Your task to perform on an android device: set default search engine in the chrome app Image 0: 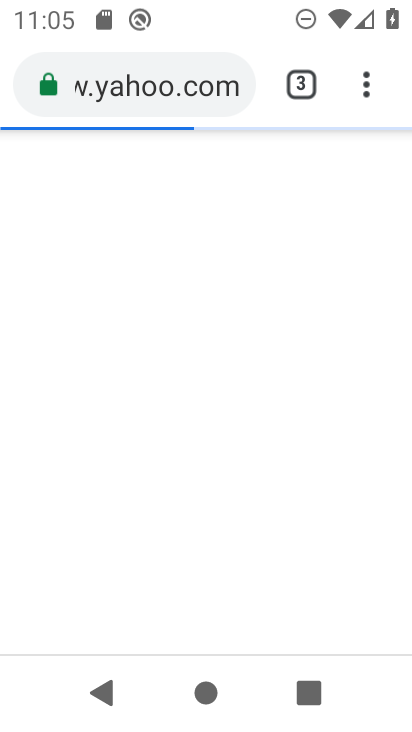
Step 0: press home button
Your task to perform on an android device: set default search engine in the chrome app Image 1: 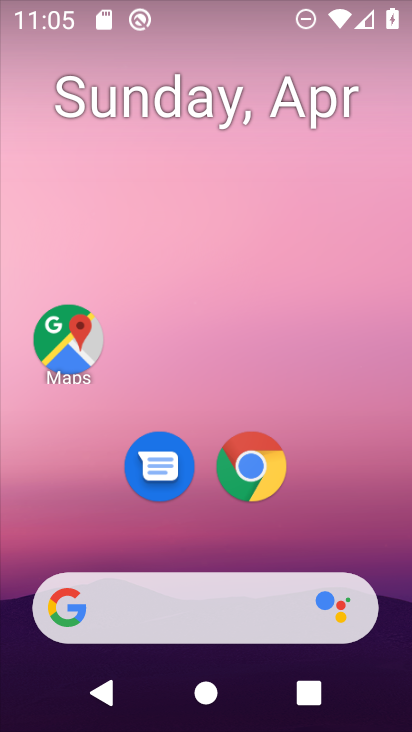
Step 1: drag from (360, 523) to (373, 99)
Your task to perform on an android device: set default search engine in the chrome app Image 2: 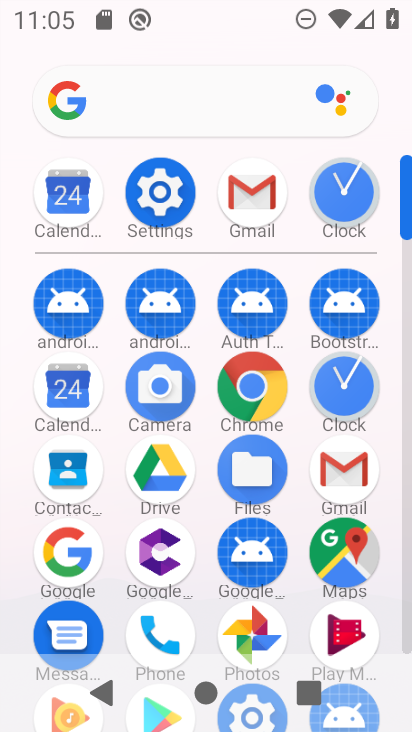
Step 2: click (251, 393)
Your task to perform on an android device: set default search engine in the chrome app Image 3: 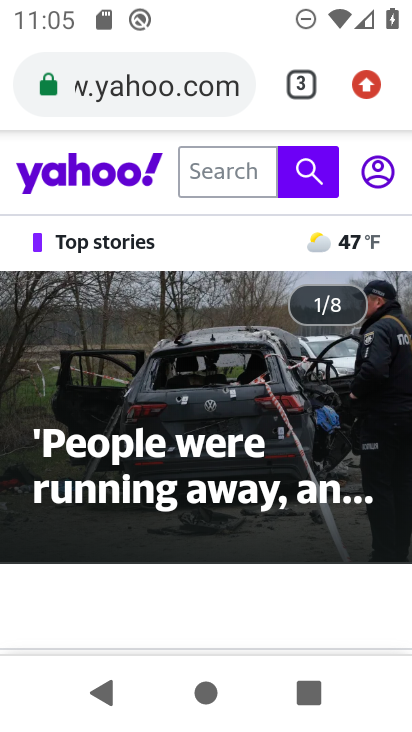
Step 3: click (371, 84)
Your task to perform on an android device: set default search engine in the chrome app Image 4: 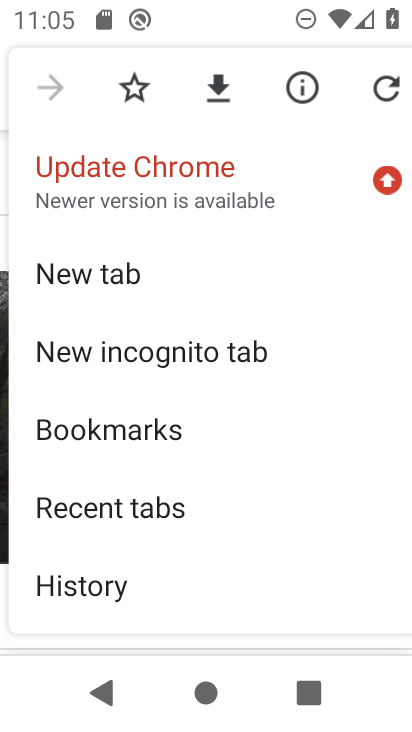
Step 4: drag from (301, 534) to (307, 366)
Your task to perform on an android device: set default search engine in the chrome app Image 5: 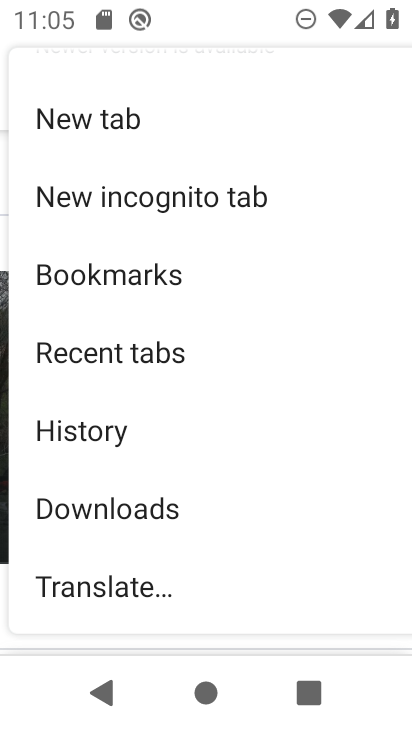
Step 5: drag from (260, 578) to (273, 279)
Your task to perform on an android device: set default search engine in the chrome app Image 6: 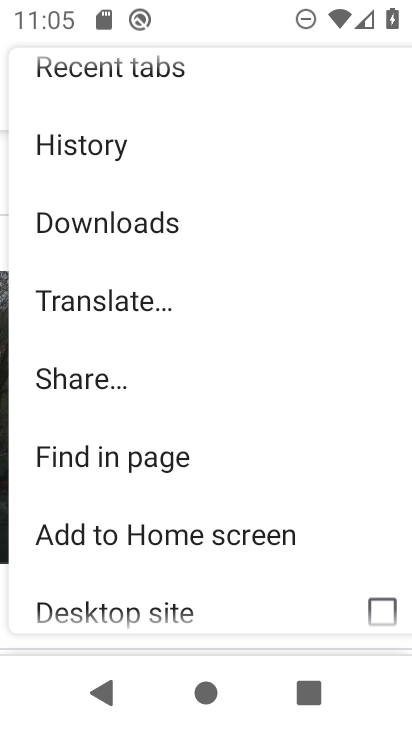
Step 6: drag from (284, 565) to (293, 319)
Your task to perform on an android device: set default search engine in the chrome app Image 7: 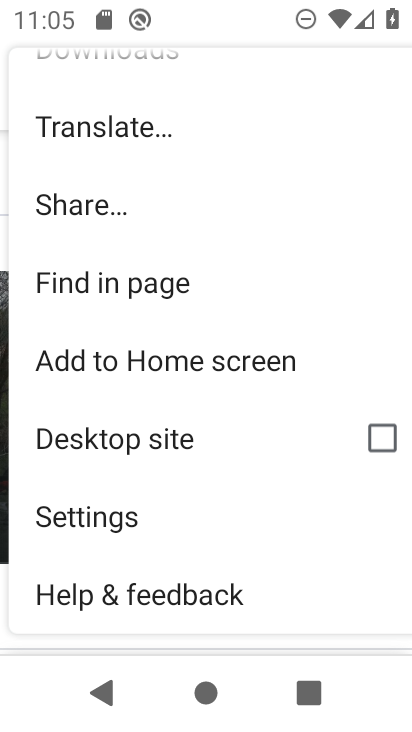
Step 7: click (134, 522)
Your task to perform on an android device: set default search engine in the chrome app Image 8: 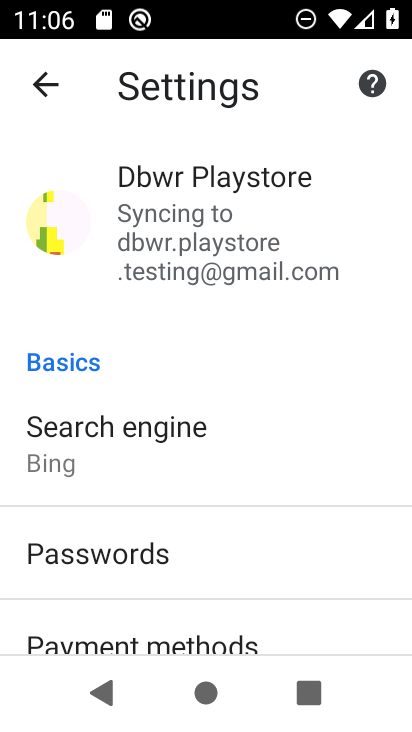
Step 8: click (140, 456)
Your task to perform on an android device: set default search engine in the chrome app Image 9: 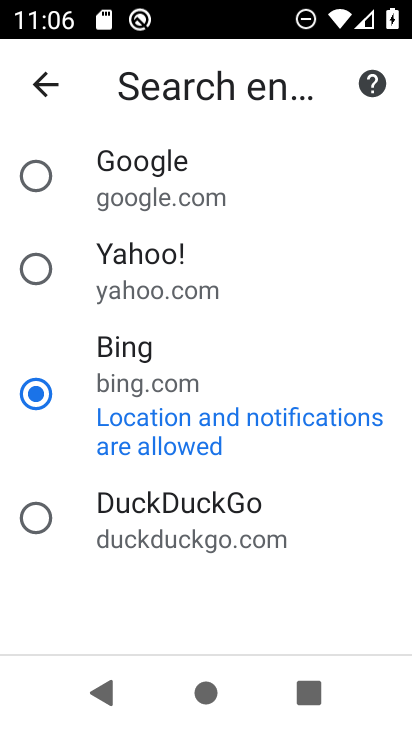
Step 9: click (45, 170)
Your task to perform on an android device: set default search engine in the chrome app Image 10: 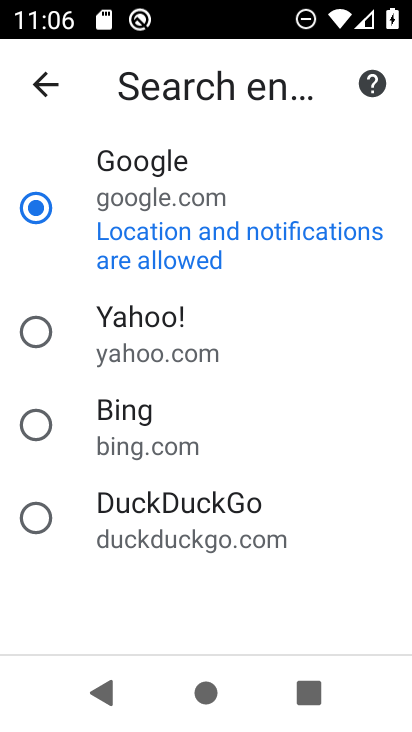
Step 10: task complete